Your task to perform on an android device: Open calendar and show me the third week of next month Image 0: 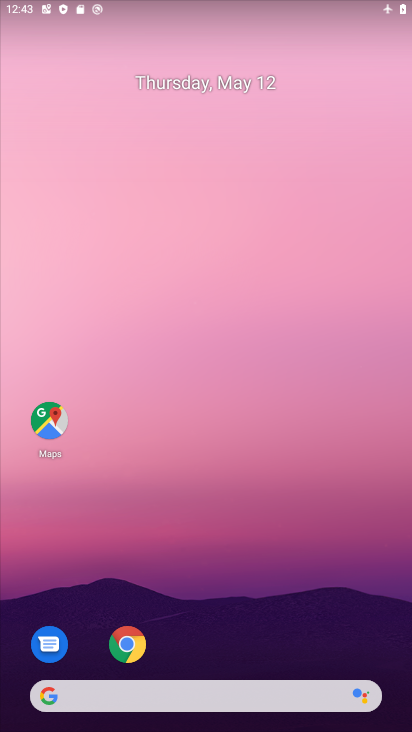
Step 0: drag from (285, 595) to (212, 91)
Your task to perform on an android device: Open calendar and show me the third week of next month Image 1: 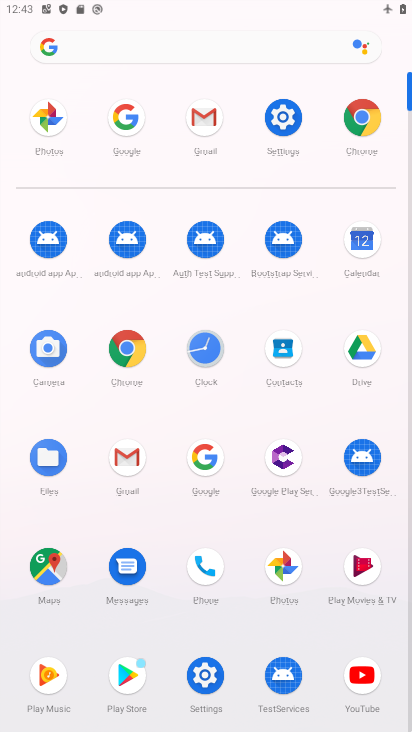
Step 1: click (364, 236)
Your task to perform on an android device: Open calendar and show me the third week of next month Image 2: 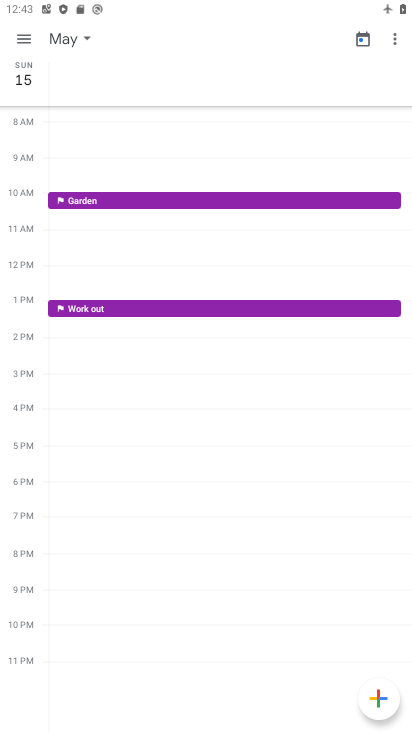
Step 2: click (23, 37)
Your task to perform on an android device: Open calendar and show me the third week of next month Image 3: 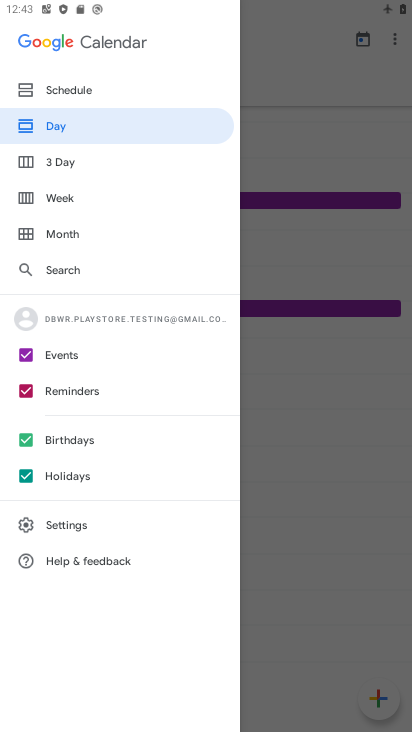
Step 3: click (69, 205)
Your task to perform on an android device: Open calendar and show me the third week of next month Image 4: 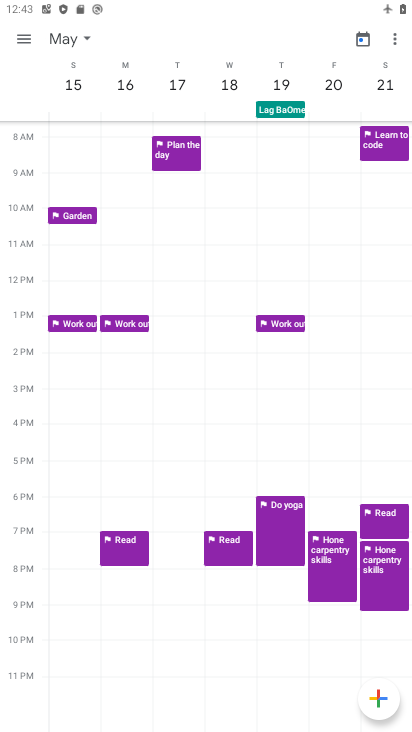
Step 4: click (78, 30)
Your task to perform on an android device: Open calendar and show me the third week of next month Image 5: 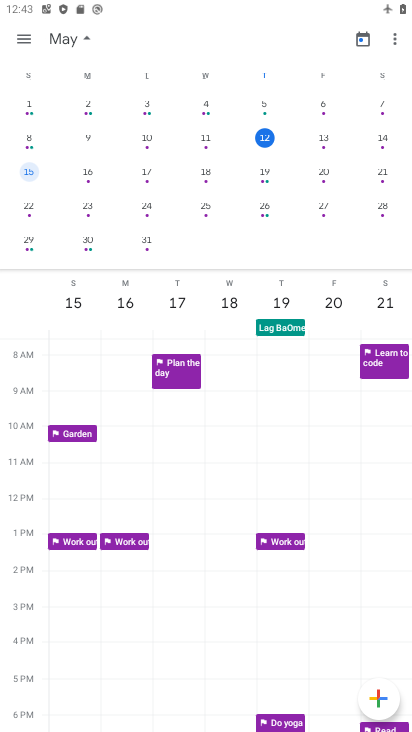
Step 5: drag from (360, 166) to (15, 268)
Your task to perform on an android device: Open calendar and show me the third week of next month Image 6: 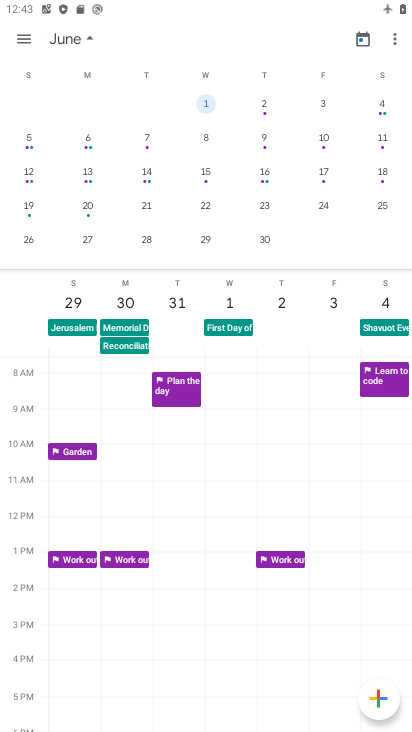
Step 6: click (34, 171)
Your task to perform on an android device: Open calendar and show me the third week of next month Image 7: 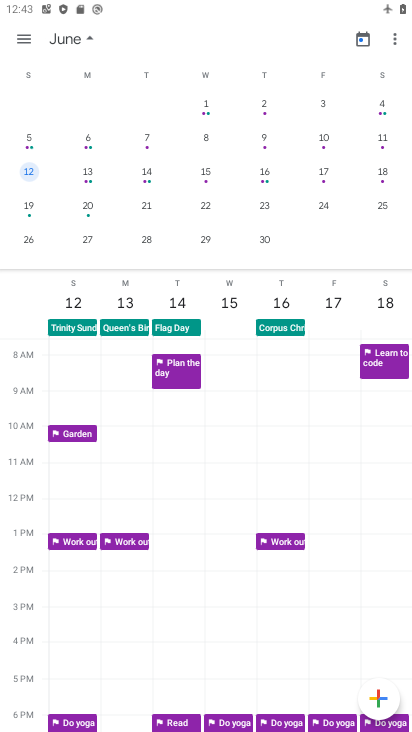
Step 7: task complete